Your task to perform on an android device: find snoozed emails in the gmail app Image 0: 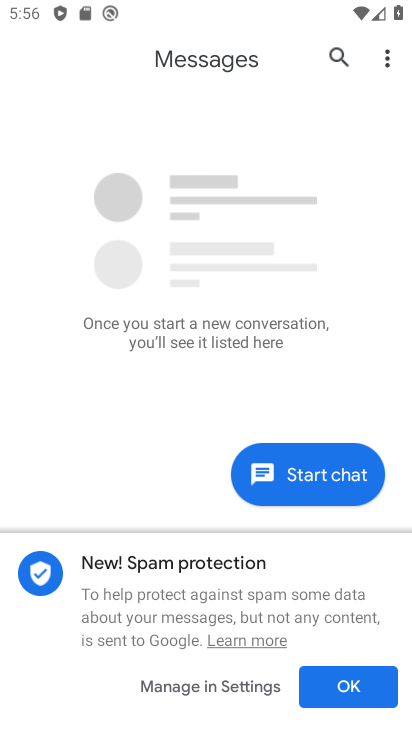
Step 0: press back button
Your task to perform on an android device: find snoozed emails in the gmail app Image 1: 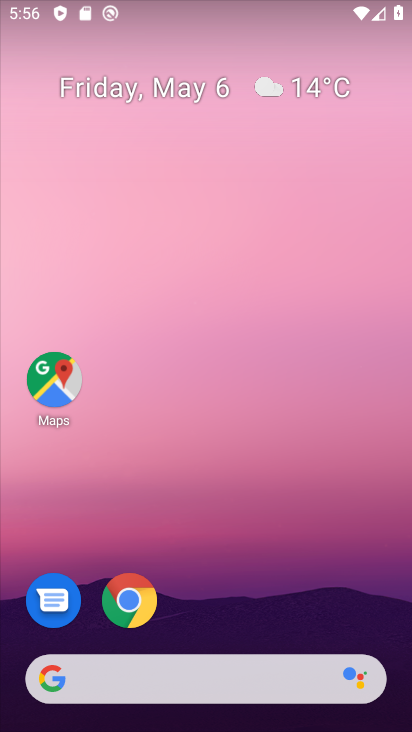
Step 1: drag from (240, 610) to (232, 34)
Your task to perform on an android device: find snoozed emails in the gmail app Image 2: 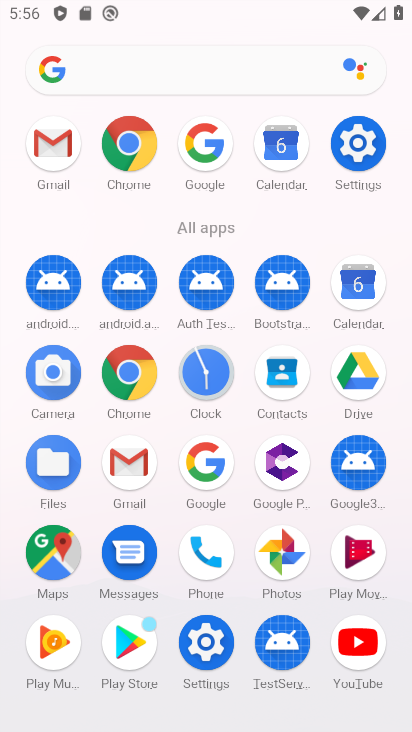
Step 2: click (50, 146)
Your task to perform on an android device: find snoozed emails in the gmail app Image 3: 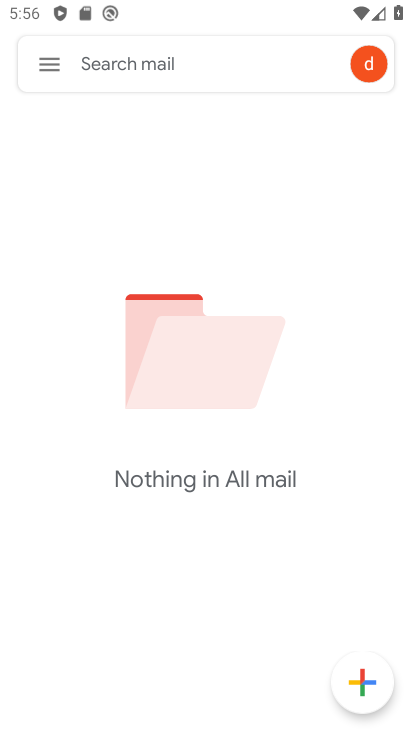
Step 3: click (48, 66)
Your task to perform on an android device: find snoozed emails in the gmail app Image 4: 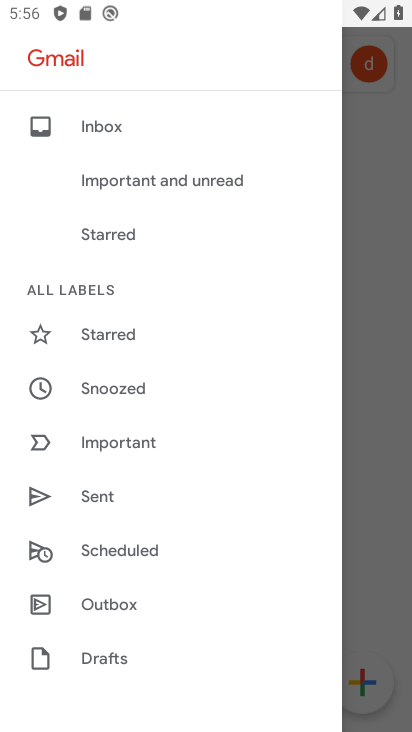
Step 4: click (98, 386)
Your task to perform on an android device: find snoozed emails in the gmail app Image 5: 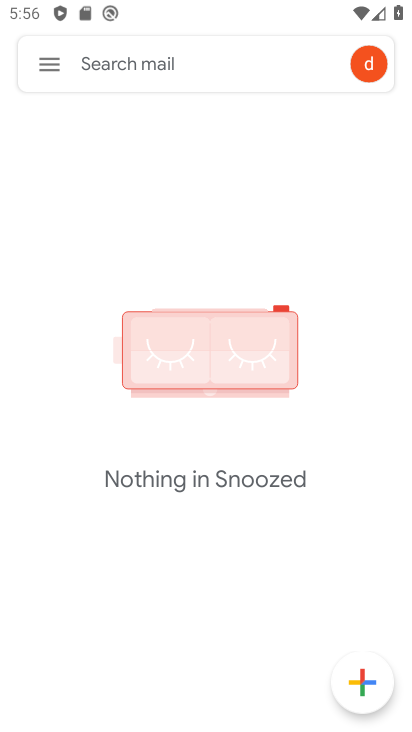
Step 5: click (44, 63)
Your task to perform on an android device: find snoozed emails in the gmail app Image 6: 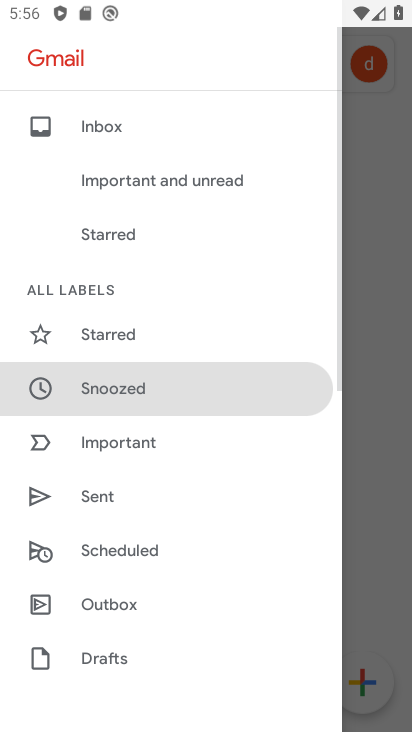
Step 6: drag from (111, 488) to (134, 397)
Your task to perform on an android device: find snoozed emails in the gmail app Image 7: 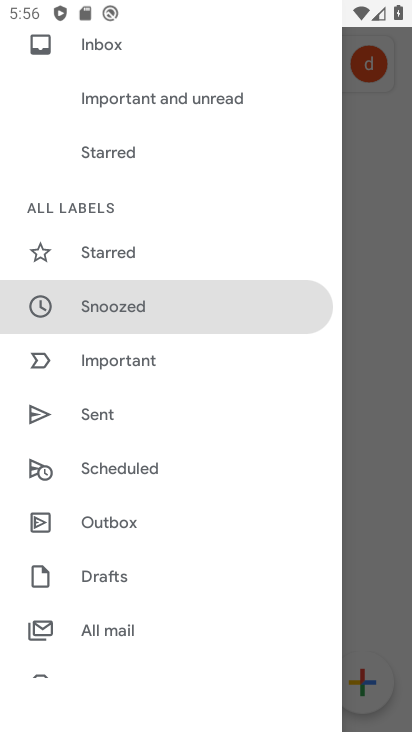
Step 7: drag from (141, 503) to (153, 425)
Your task to perform on an android device: find snoozed emails in the gmail app Image 8: 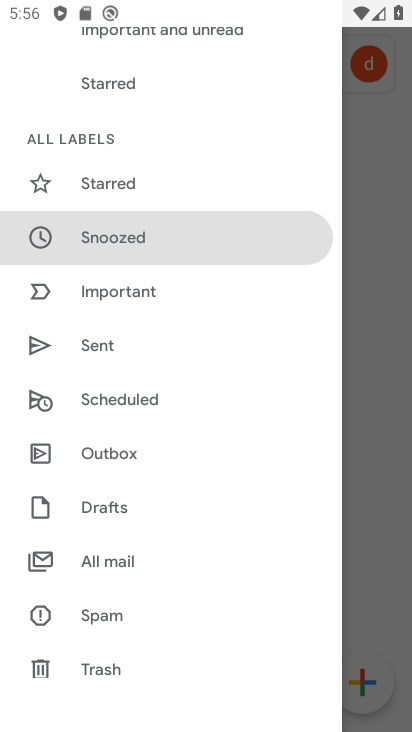
Step 8: click (105, 553)
Your task to perform on an android device: find snoozed emails in the gmail app Image 9: 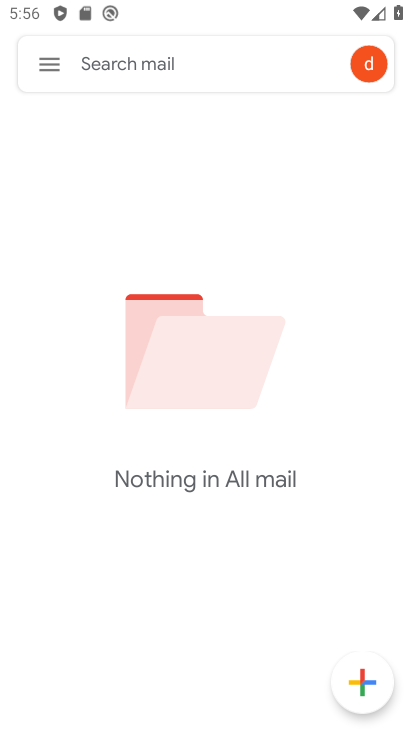
Step 9: task complete